Your task to perform on an android device: toggle wifi Image 0: 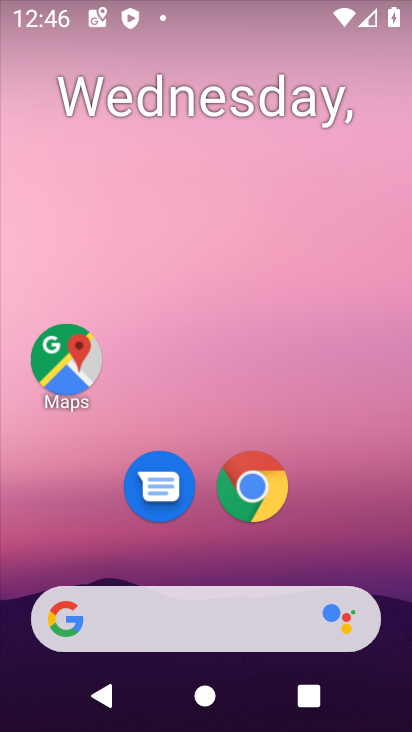
Step 0: drag from (373, 555) to (369, 129)
Your task to perform on an android device: toggle wifi Image 1: 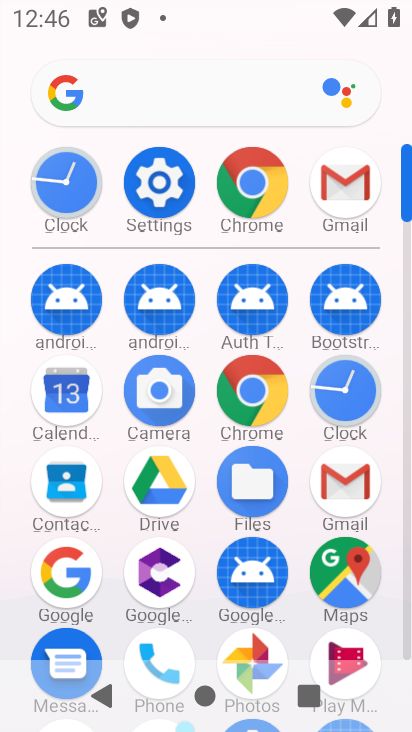
Step 1: click (169, 203)
Your task to perform on an android device: toggle wifi Image 2: 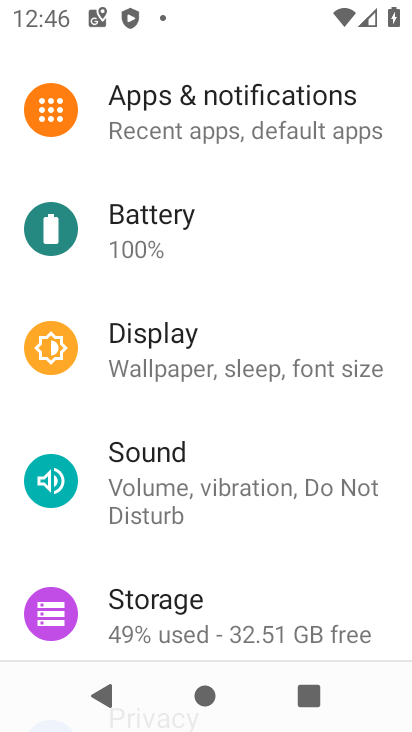
Step 2: drag from (364, 207) to (357, 353)
Your task to perform on an android device: toggle wifi Image 3: 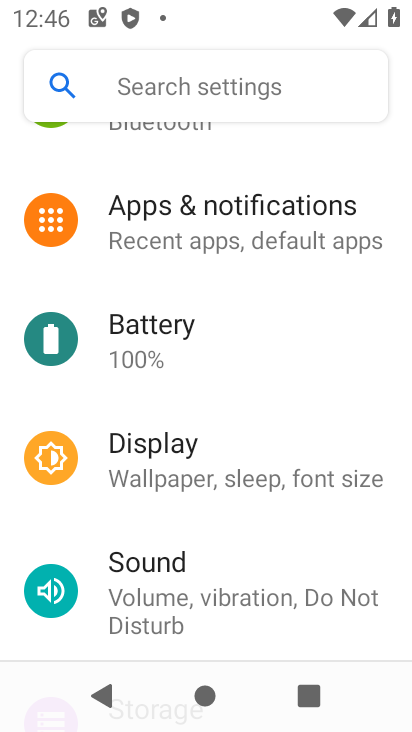
Step 3: drag from (367, 187) to (358, 320)
Your task to perform on an android device: toggle wifi Image 4: 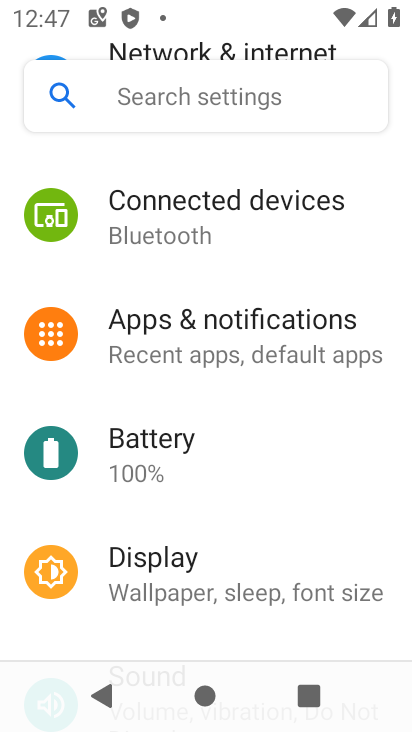
Step 4: drag from (373, 187) to (373, 313)
Your task to perform on an android device: toggle wifi Image 5: 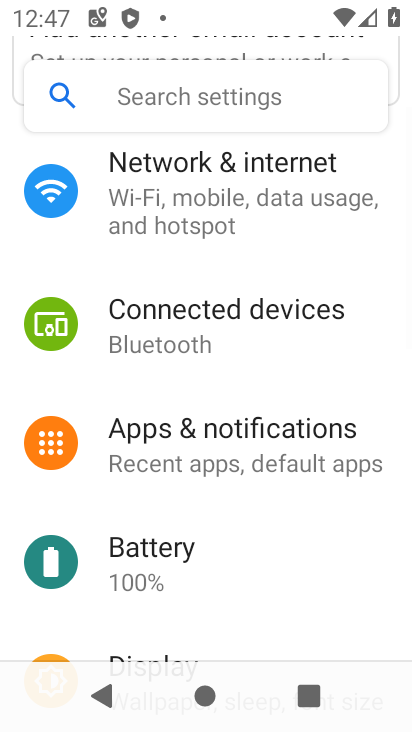
Step 5: drag from (373, 244) to (362, 362)
Your task to perform on an android device: toggle wifi Image 6: 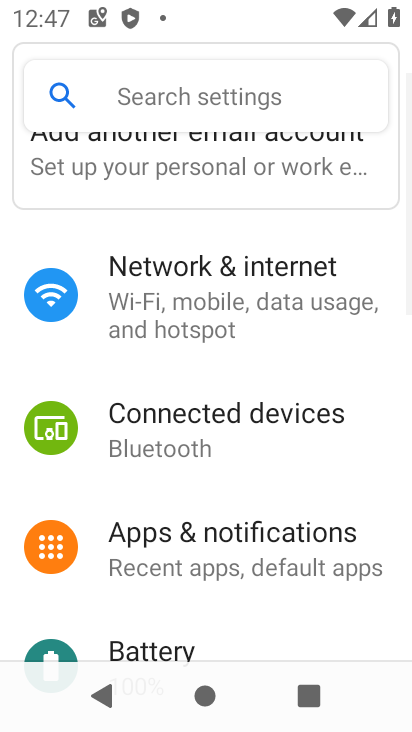
Step 6: drag from (355, 242) to (353, 368)
Your task to perform on an android device: toggle wifi Image 7: 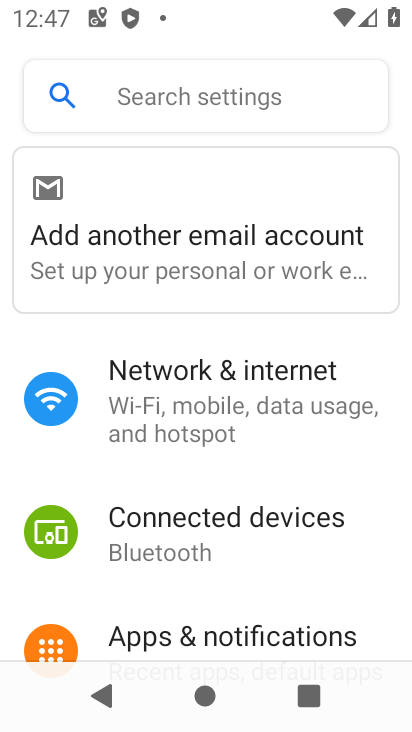
Step 7: click (333, 390)
Your task to perform on an android device: toggle wifi Image 8: 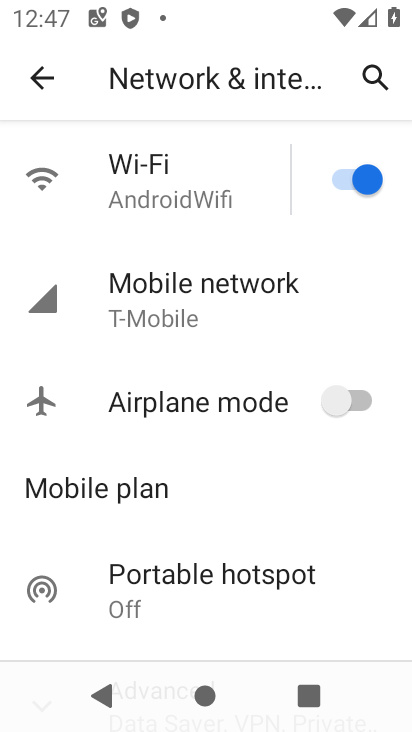
Step 8: drag from (311, 501) to (334, 299)
Your task to perform on an android device: toggle wifi Image 9: 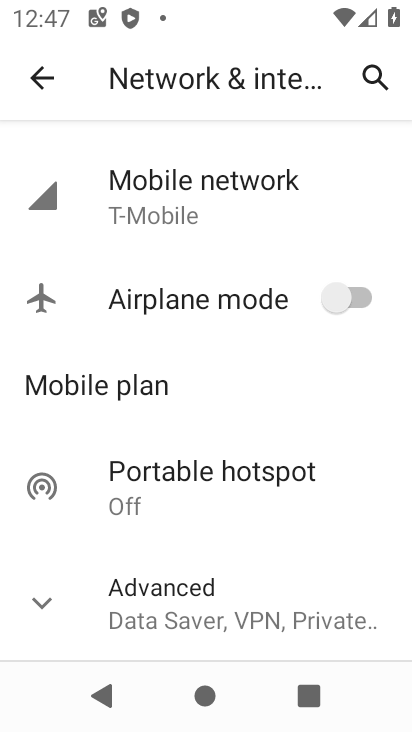
Step 9: drag from (323, 498) to (321, 344)
Your task to perform on an android device: toggle wifi Image 10: 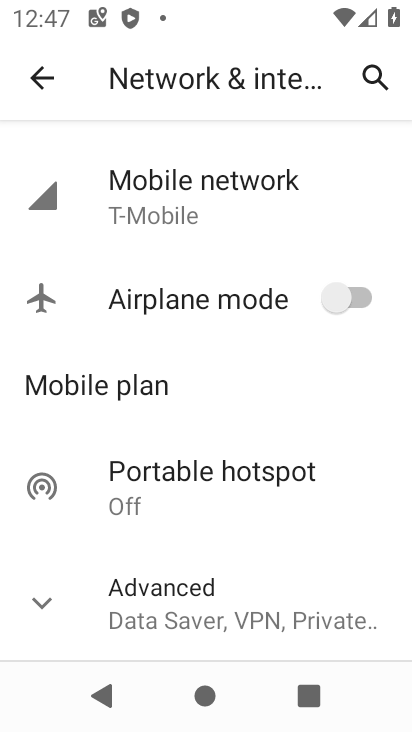
Step 10: drag from (307, 240) to (292, 442)
Your task to perform on an android device: toggle wifi Image 11: 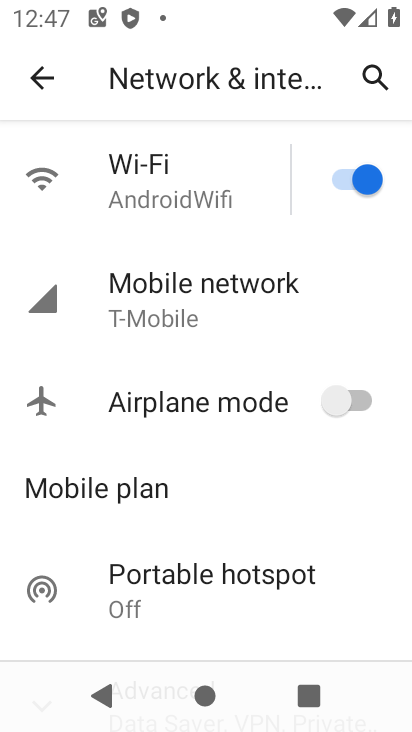
Step 11: drag from (285, 344) to (293, 501)
Your task to perform on an android device: toggle wifi Image 12: 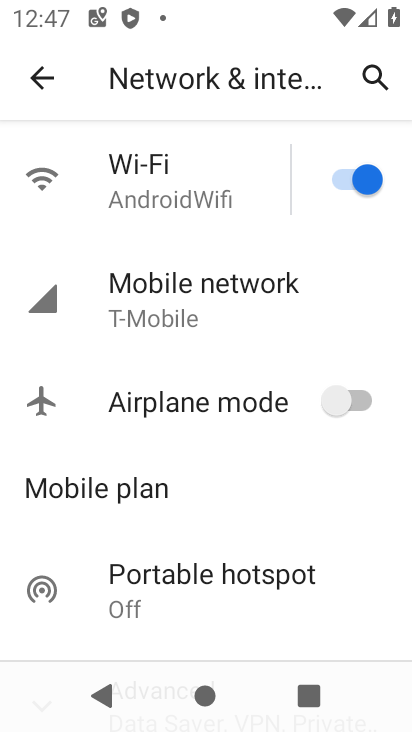
Step 12: drag from (279, 250) to (293, 460)
Your task to perform on an android device: toggle wifi Image 13: 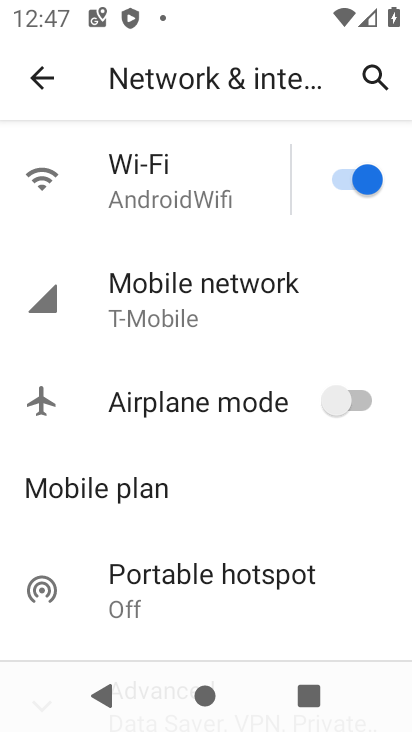
Step 13: drag from (288, 489) to (294, 250)
Your task to perform on an android device: toggle wifi Image 14: 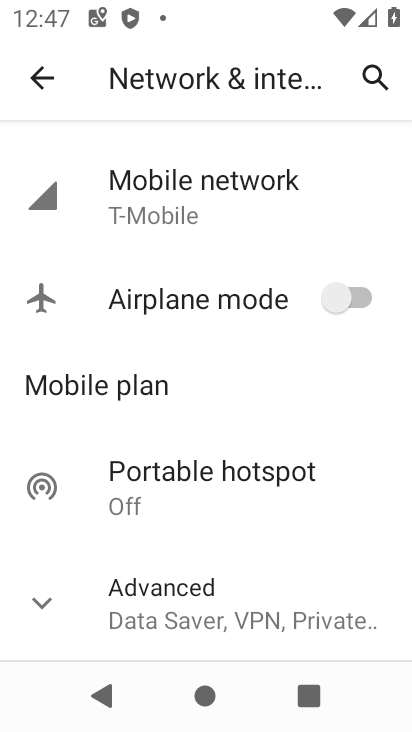
Step 14: drag from (283, 207) to (289, 487)
Your task to perform on an android device: toggle wifi Image 15: 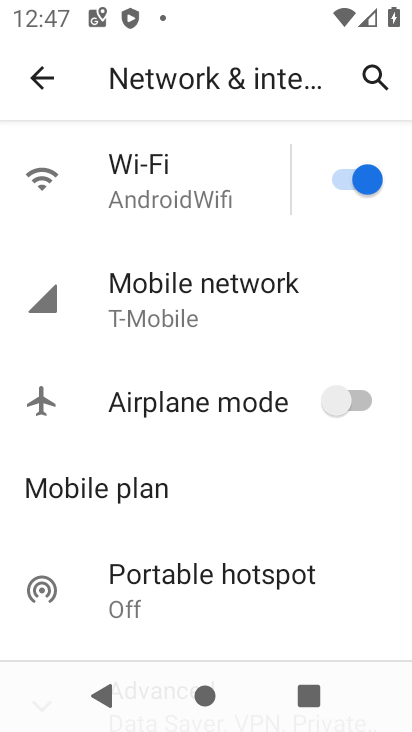
Step 15: click (366, 176)
Your task to perform on an android device: toggle wifi Image 16: 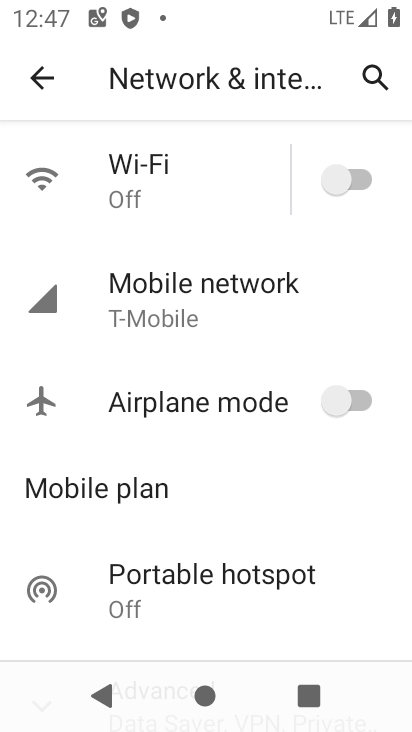
Step 16: task complete